Your task to perform on an android device: turn off translation in the chrome app Image 0: 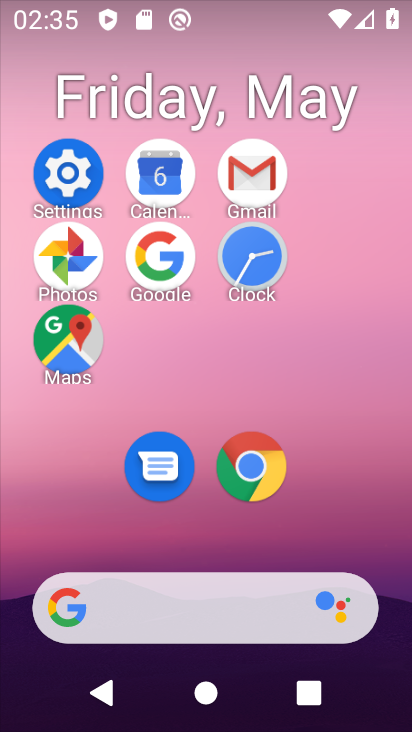
Step 0: click (265, 457)
Your task to perform on an android device: turn off translation in the chrome app Image 1: 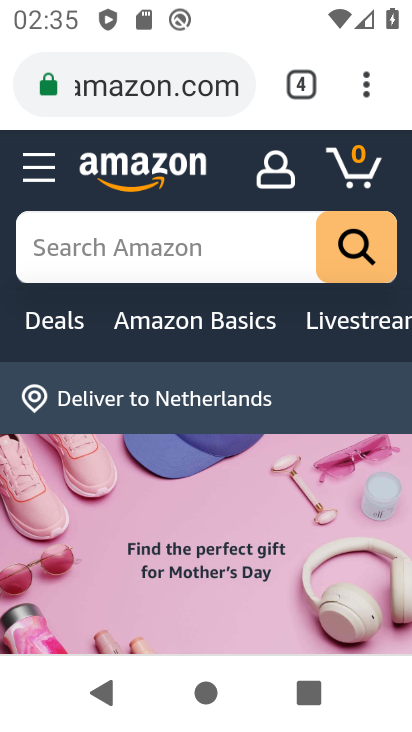
Step 1: click (371, 84)
Your task to perform on an android device: turn off translation in the chrome app Image 2: 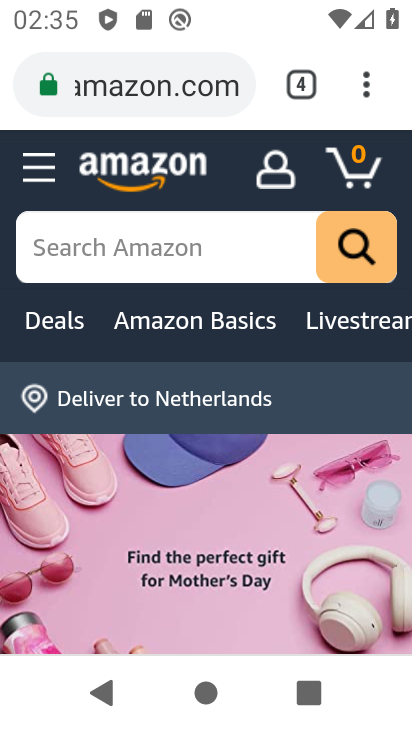
Step 2: click (380, 75)
Your task to perform on an android device: turn off translation in the chrome app Image 3: 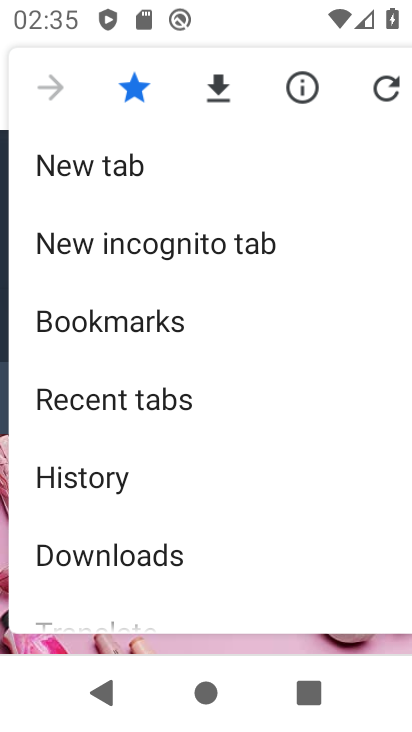
Step 3: drag from (258, 515) to (275, 135)
Your task to perform on an android device: turn off translation in the chrome app Image 4: 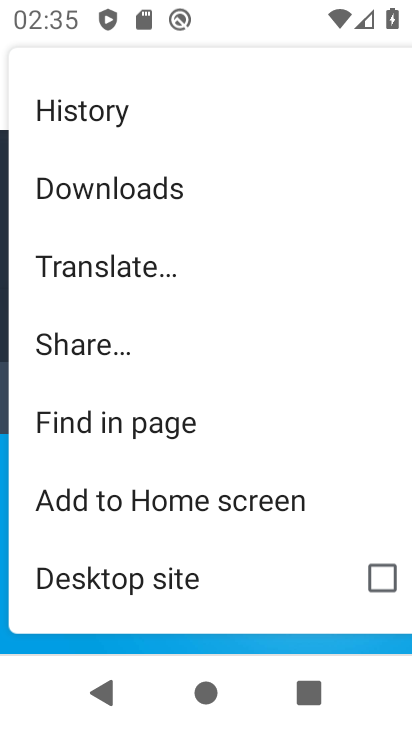
Step 4: drag from (197, 337) to (231, 155)
Your task to perform on an android device: turn off translation in the chrome app Image 5: 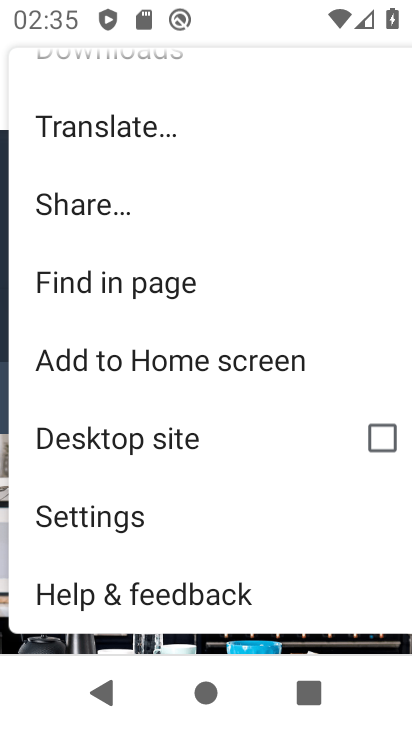
Step 5: click (132, 503)
Your task to perform on an android device: turn off translation in the chrome app Image 6: 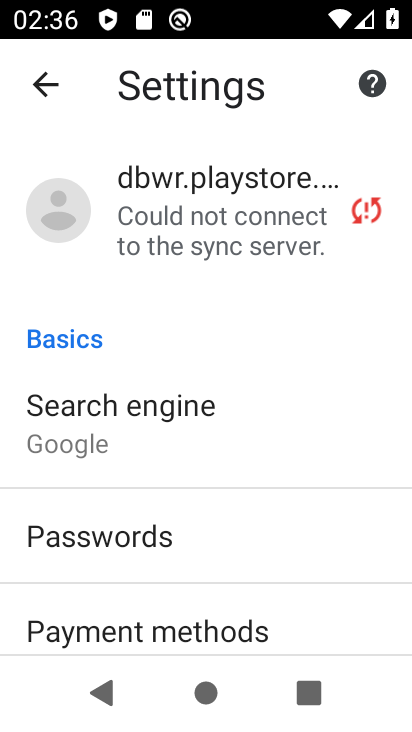
Step 6: drag from (183, 557) to (217, 250)
Your task to perform on an android device: turn off translation in the chrome app Image 7: 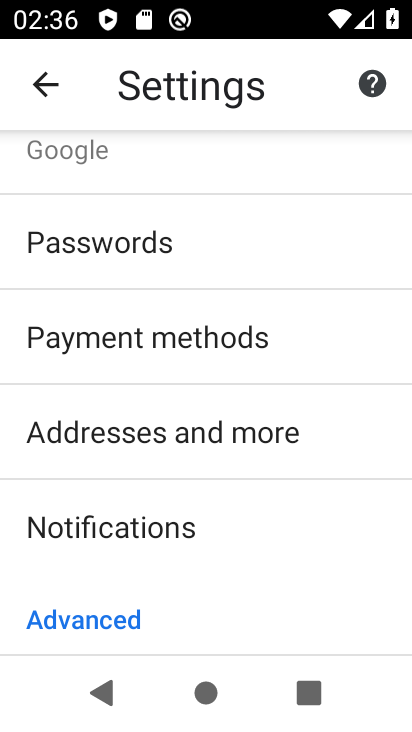
Step 7: drag from (257, 550) to (315, 216)
Your task to perform on an android device: turn off translation in the chrome app Image 8: 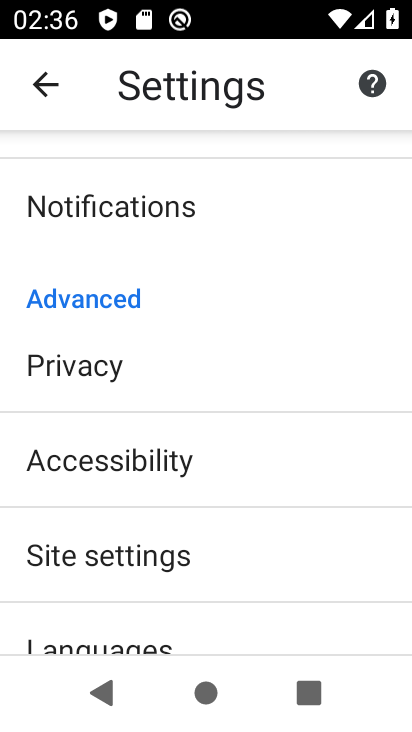
Step 8: drag from (191, 623) to (244, 281)
Your task to perform on an android device: turn off translation in the chrome app Image 9: 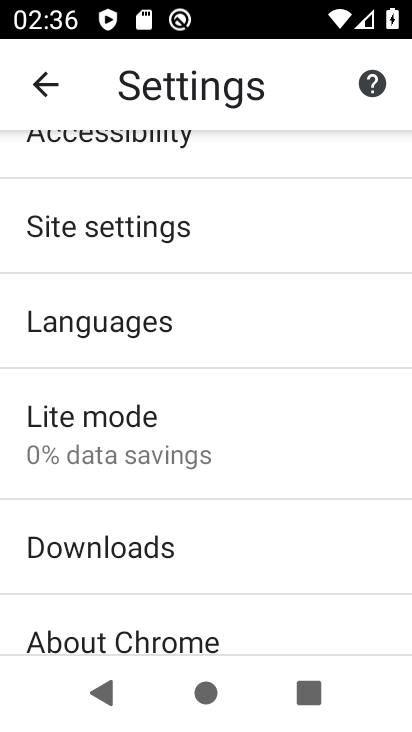
Step 9: click (226, 315)
Your task to perform on an android device: turn off translation in the chrome app Image 10: 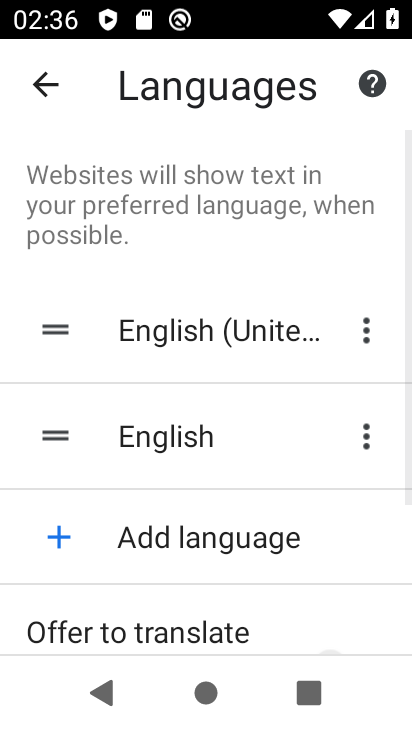
Step 10: task complete